Your task to perform on an android device: change your default location settings in chrome Image 0: 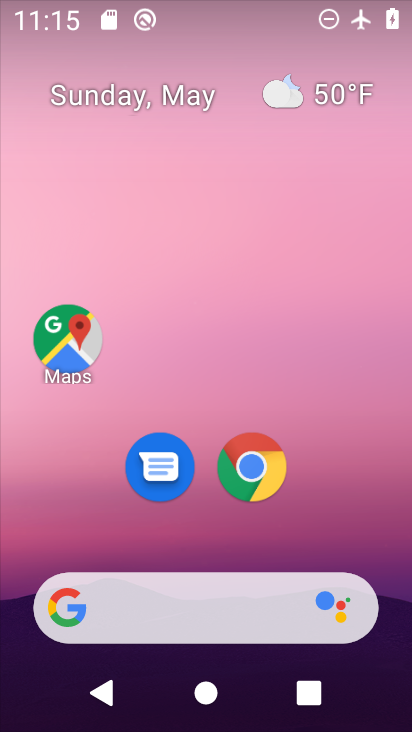
Step 0: click (250, 484)
Your task to perform on an android device: change your default location settings in chrome Image 1: 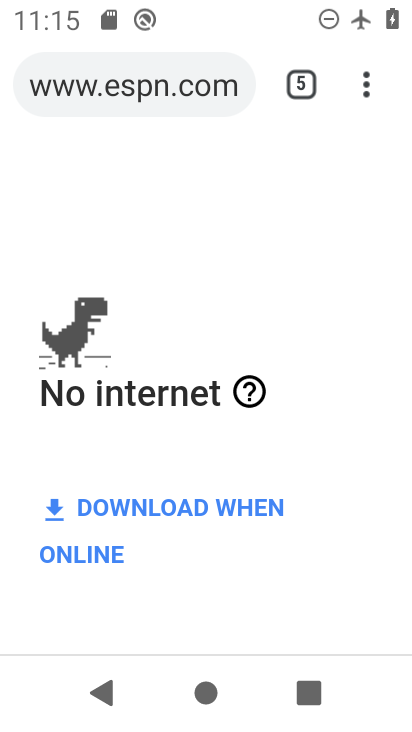
Step 1: drag from (361, 73) to (76, 499)
Your task to perform on an android device: change your default location settings in chrome Image 2: 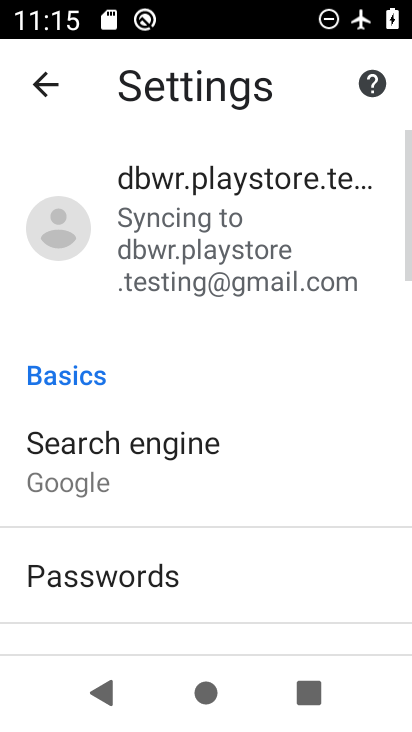
Step 2: drag from (214, 541) to (253, 186)
Your task to perform on an android device: change your default location settings in chrome Image 3: 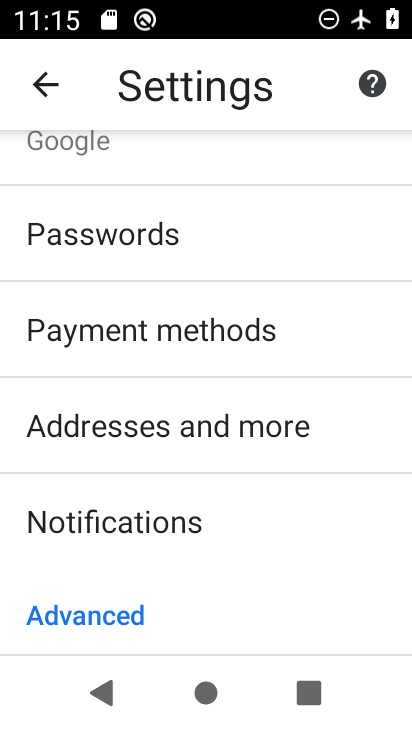
Step 3: drag from (258, 583) to (251, 306)
Your task to perform on an android device: change your default location settings in chrome Image 4: 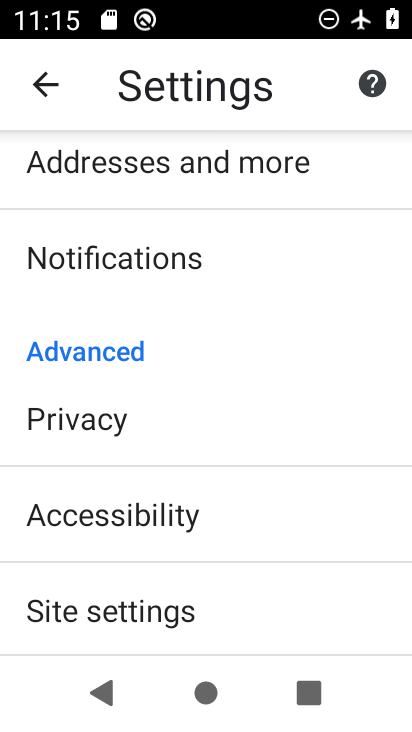
Step 4: drag from (252, 550) to (263, 324)
Your task to perform on an android device: change your default location settings in chrome Image 5: 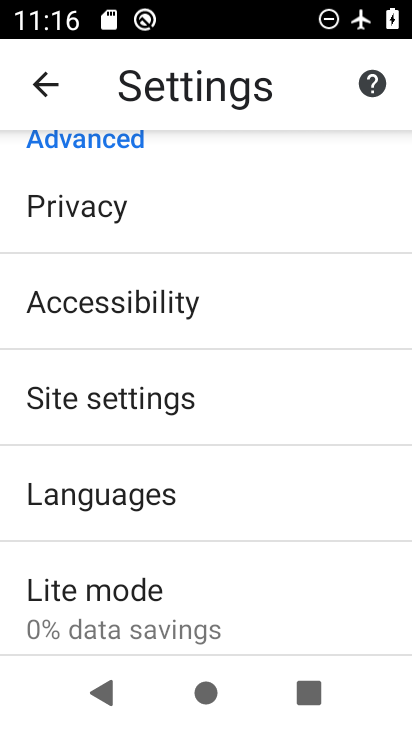
Step 5: click (180, 384)
Your task to perform on an android device: change your default location settings in chrome Image 6: 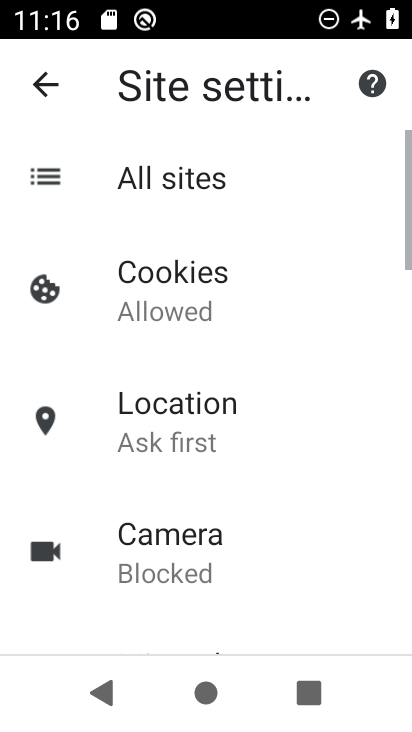
Step 6: click (180, 384)
Your task to perform on an android device: change your default location settings in chrome Image 7: 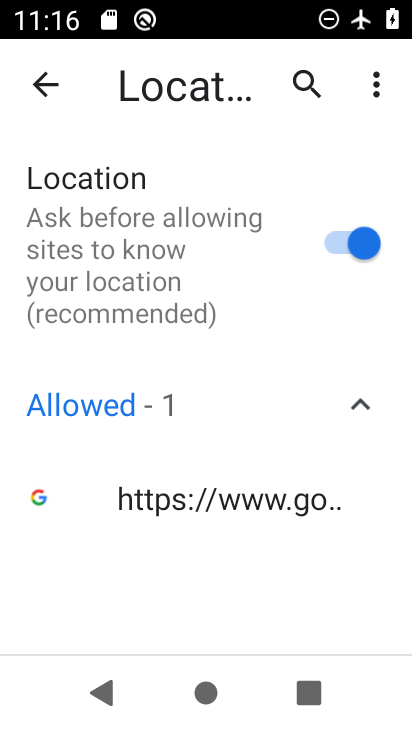
Step 7: click (336, 247)
Your task to perform on an android device: change your default location settings in chrome Image 8: 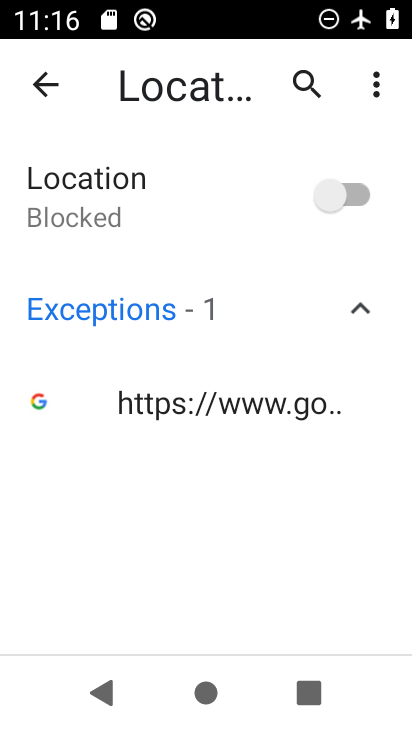
Step 8: task complete